Your task to perform on an android device: turn off location history Image 0: 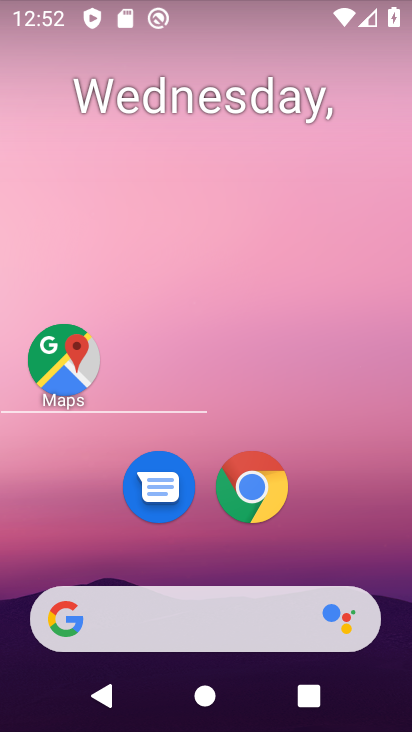
Step 0: drag from (183, 544) to (210, 14)
Your task to perform on an android device: turn off location history Image 1: 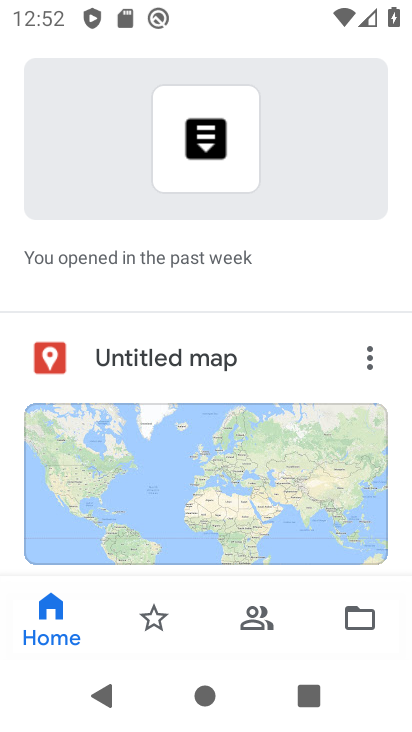
Step 1: press home button
Your task to perform on an android device: turn off location history Image 2: 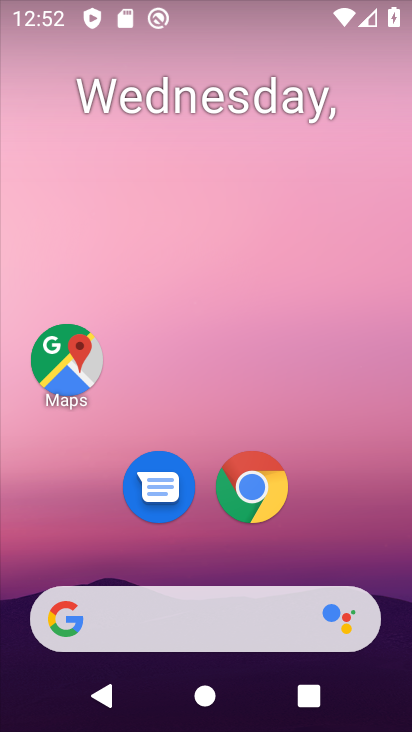
Step 2: drag from (203, 554) to (188, 12)
Your task to perform on an android device: turn off location history Image 3: 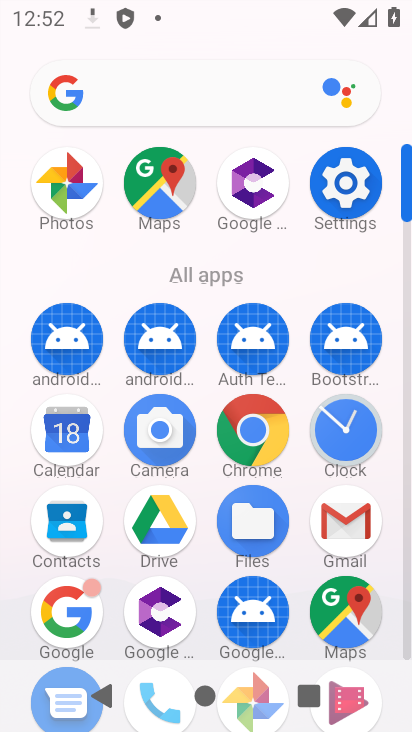
Step 3: click (352, 198)
Your task to perform on an android device: turn off location history Image 4: 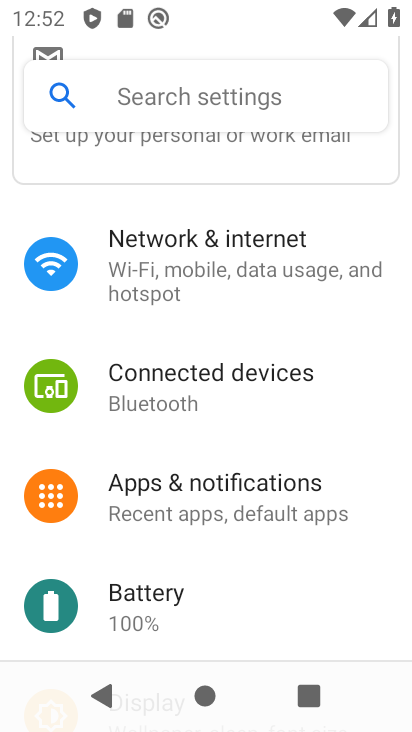
Step 4: drag from (217, 576) to (264, 247)
Your task to perform on an android device: turn off location history Image 5: 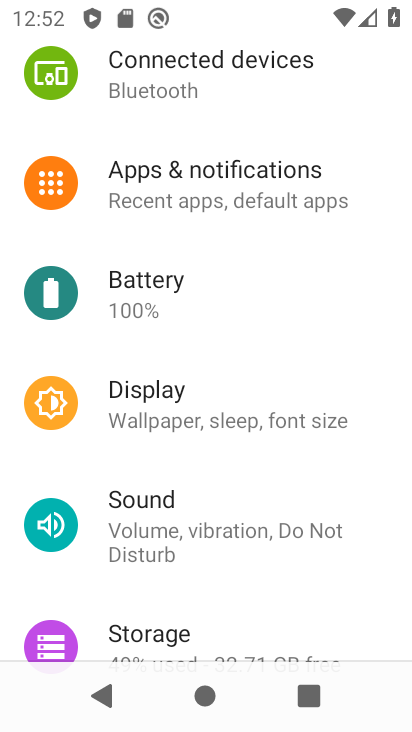
Step 5: drag from (246, 473) to (280, 232)
Your task to perform on an android device: turn off location history Image 6: 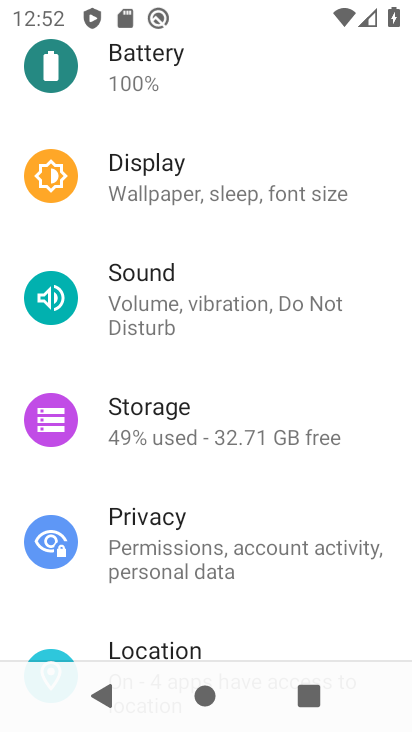
Step 6: drag from (203, 581) to (251, 254)
Your task to perform on an android device: turn off location history Image 7: 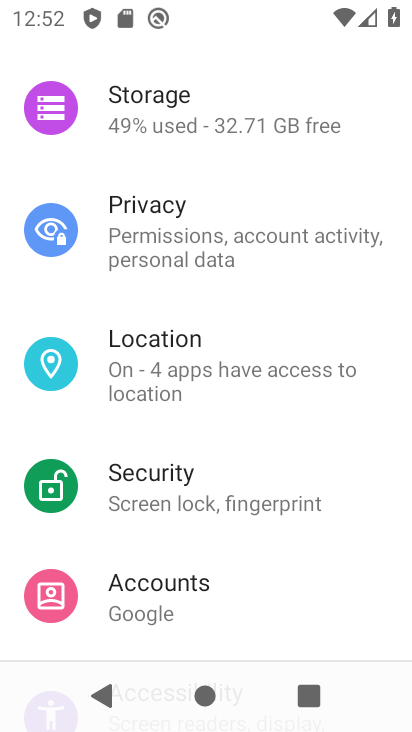
Step 7: click (187, 385)
Your task to perform on an android device: turn off location history Image 8: 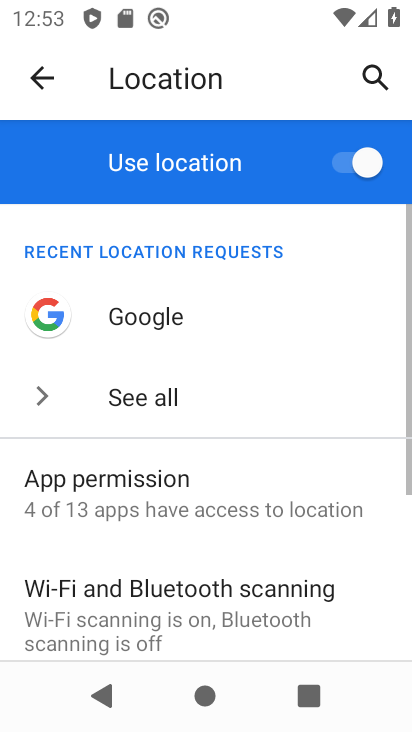
Step 8: drag from (121, 510) to (182, 252)
Your task to perform on an android device: turn off location history Image 9: 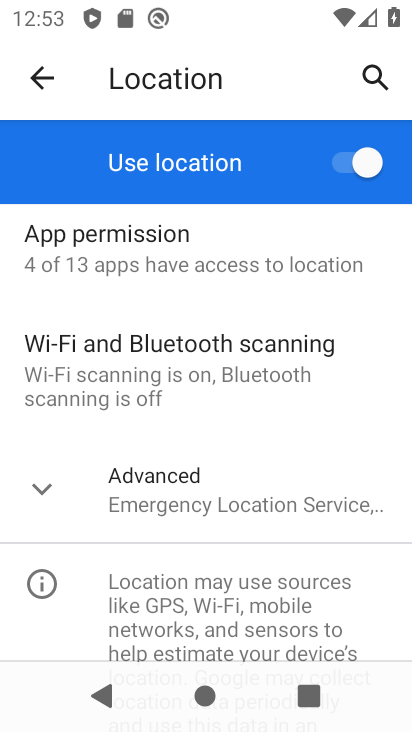
Step 9: click (184, 473)
Your task to perform on an android device: turn off location history Image 10: 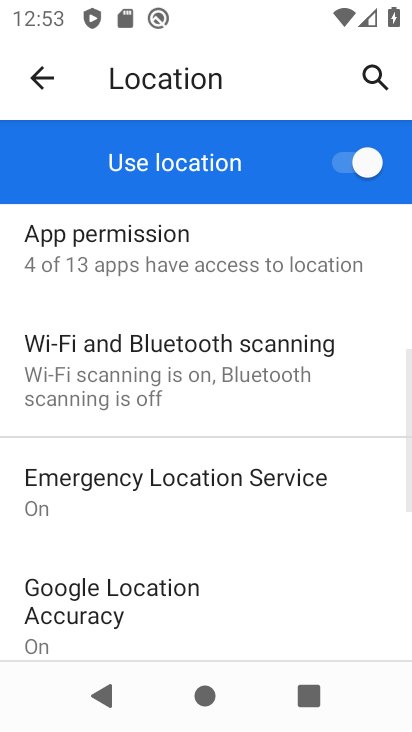
Step 10: drag from (162, 545) to (204, 324)
Your task to perform on an android device: turn off location history Image 11: 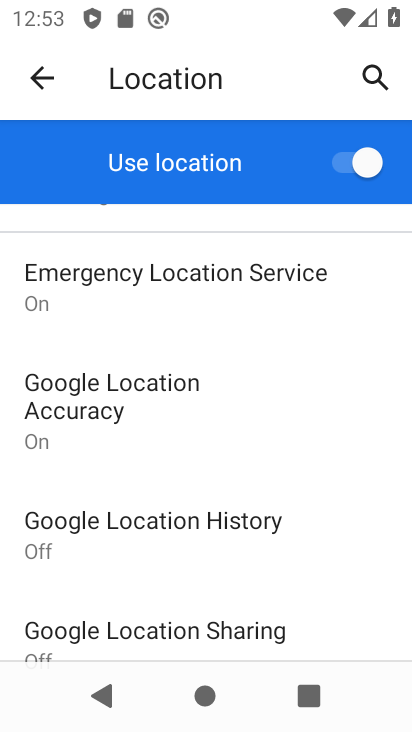
Step 11: click (185, 532)
Your task to perform on an android device: turn off location history Image 12: 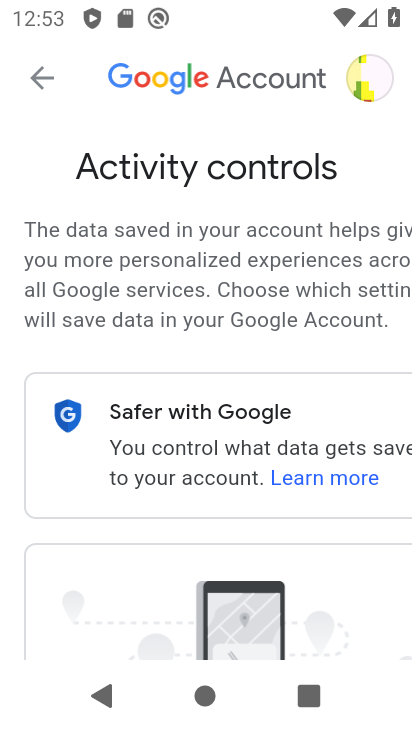
Step 12: task complete